Your task to perform on an android device: Open Chrome and go to settings Image 0: 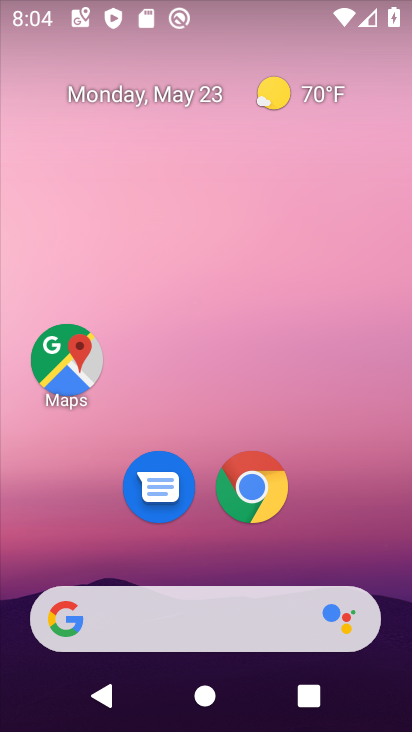
Step 0: click (245, 479)
Your task to perform on an android device: Open Chrome and go to settings Image 1: 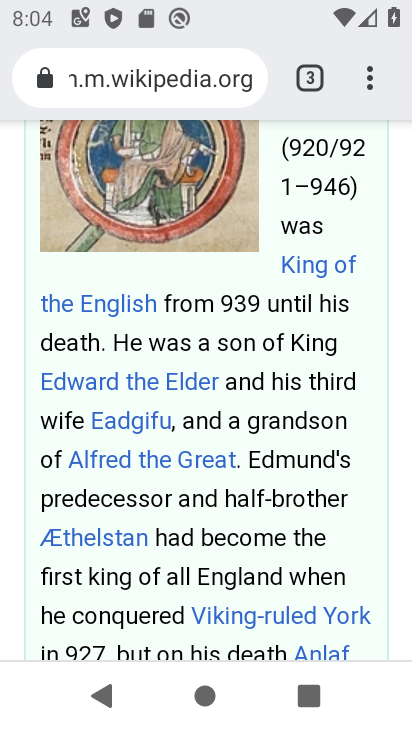
Step 1: click (370, 75)
Your task to perform on an android device: Open Chrome and go to settings Image 2: 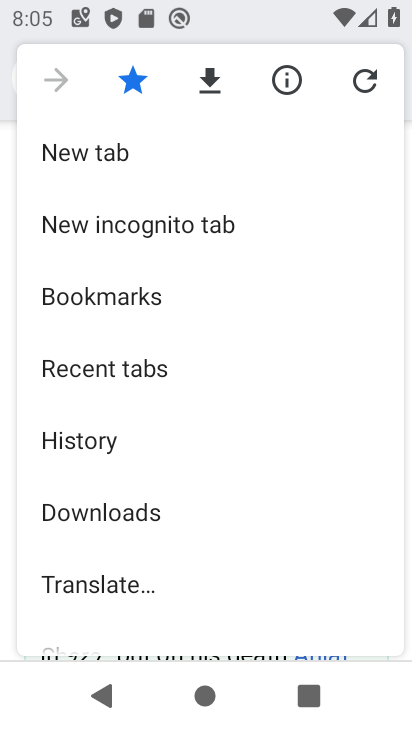
Step 2: click (134, 612)
Your task to perform on an android device: Open Chrome and go to settings Image 3: 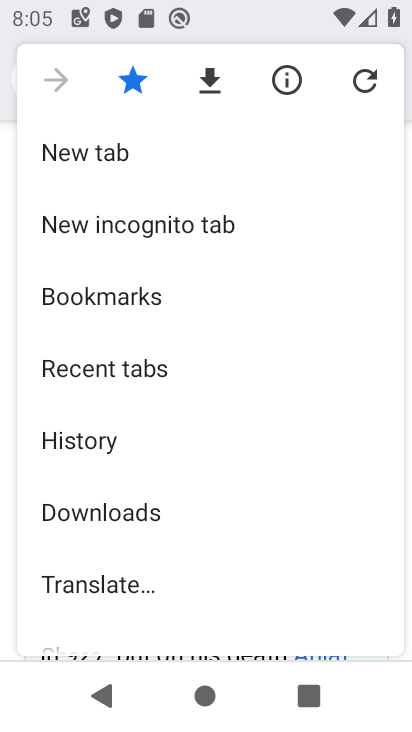
Step 3: drag from (248, 564) to (269, 268)
Your task to perform on an android device: Open Chrome and go to settings Image 4: 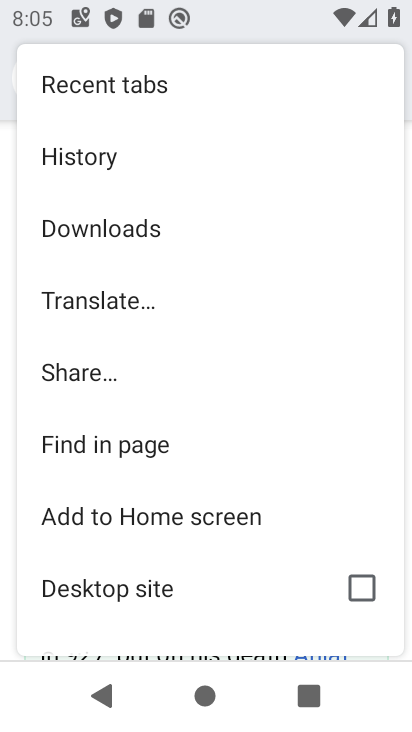
Step 4: drag from (162, 617) to (171, 111)
Your task to perform on an android device: Open Chrome and go to settings Image 5: 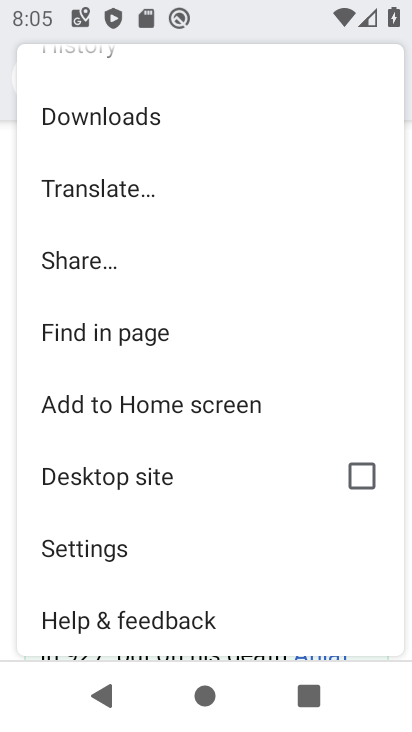
Step 5: click (105, 555)
Your task to perform on an android device: Open Chrome and go to settings Image 6: 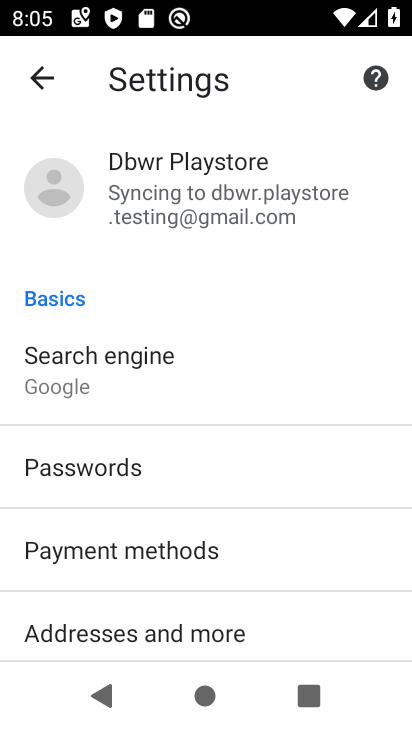
Step 6: task complete